Your task to perform on an android device: Open calendar and show me the fourth week of next month Image 0: 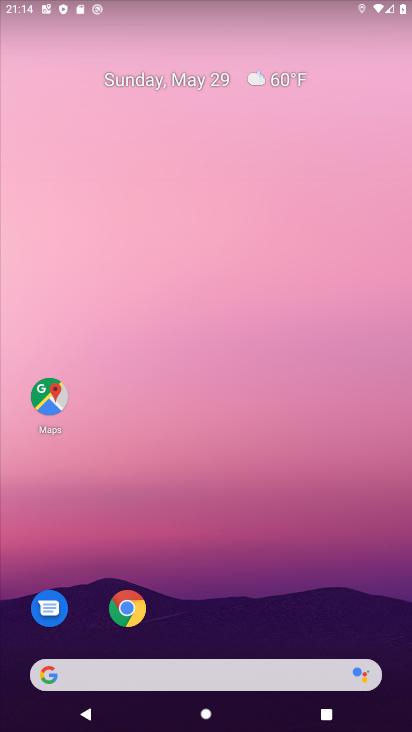
Step 0: drag from (378, 649) to (381, 242)
Your task to perform on an android device: Open calendar and show me the fourth week of next month Image 1: 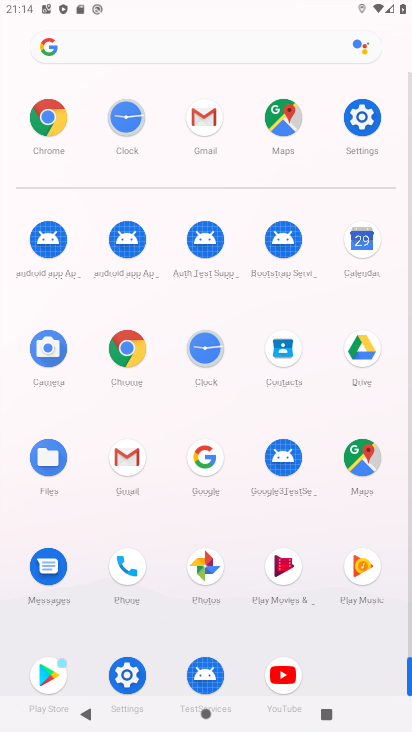
Step 1: click (370, 251)
Your task to perform on an android device: Open calendar and show me the fourth week of next month Image 2: 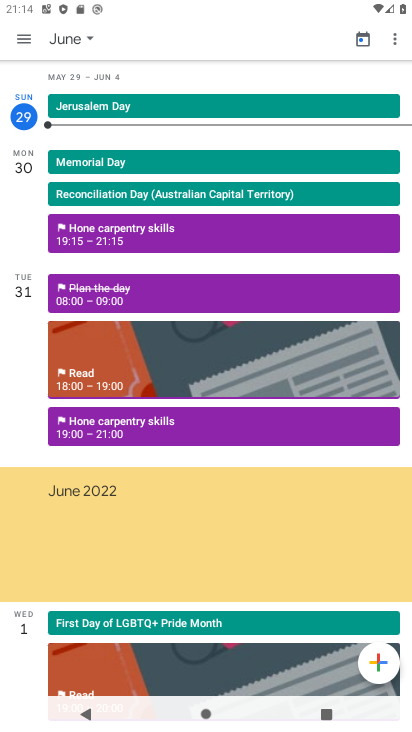
Step 2: click (89, 41)
Your task to perform on an android device: Open calendar and show me the fourth week of next month Image 3: 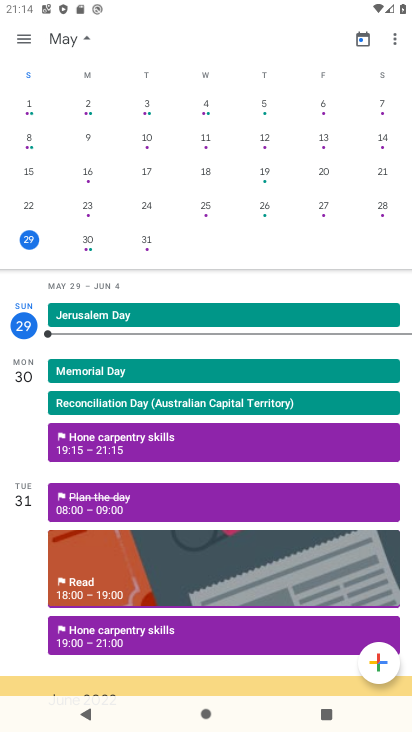
Step 3: drag from (397, 87) to (10, 80)
Your task to perform on an android device: Open calendar and show me the fourth week of next month Image 4: 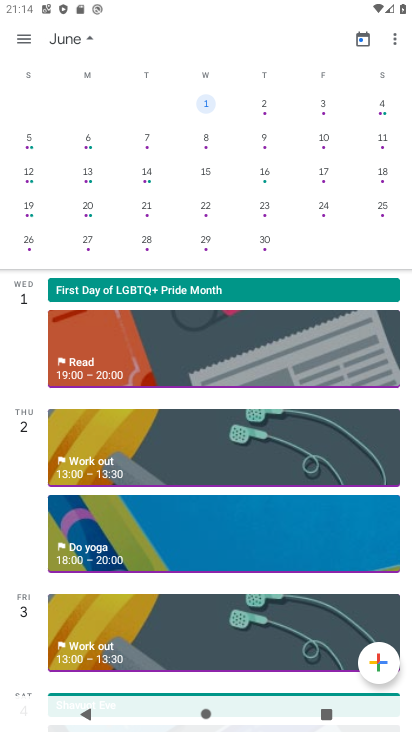
Step 4: click (92, 204)
Your task to perform on an android device: Open calendar and show me the fourth week of next month Image 5: 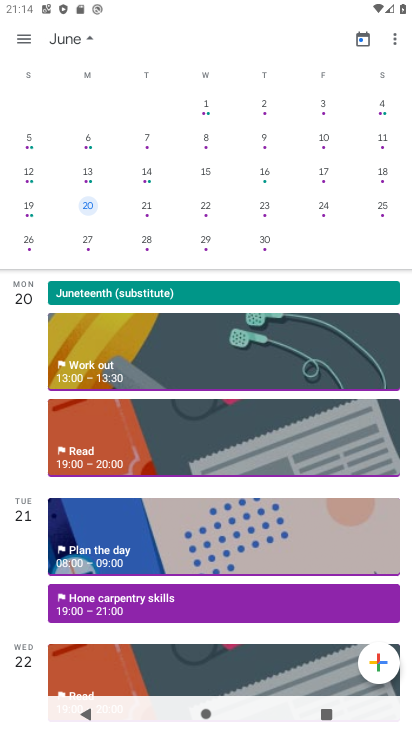
Step 5: task complete